Your task to perform on an android device: Add dell alienware to the cart on amazon.com Image 0: 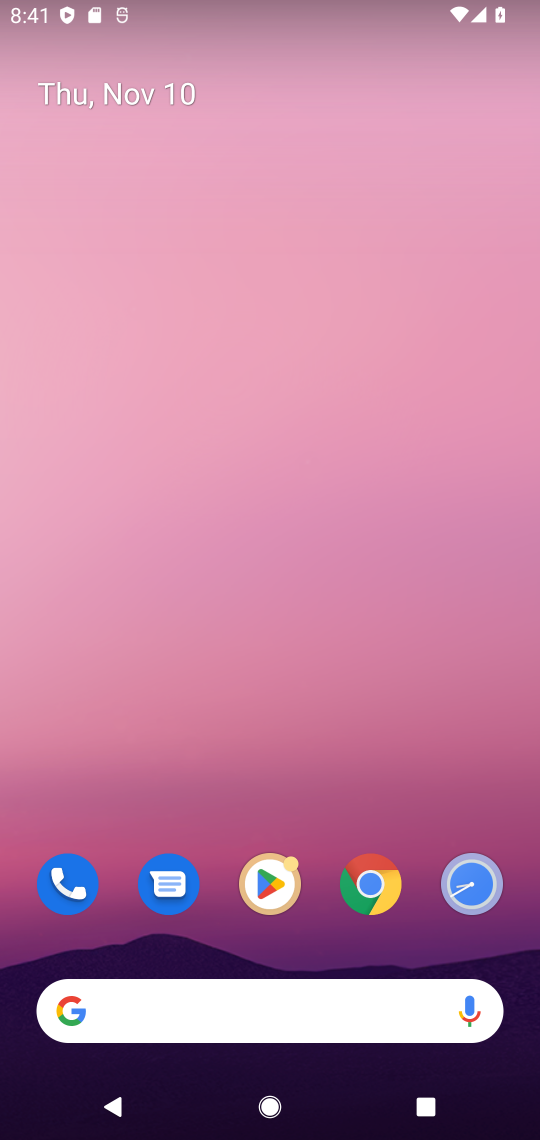
Step 0: click (231, 1016)
Your task to perform on an android device: Add dell alienware to the cart on amazon.com Image 1: 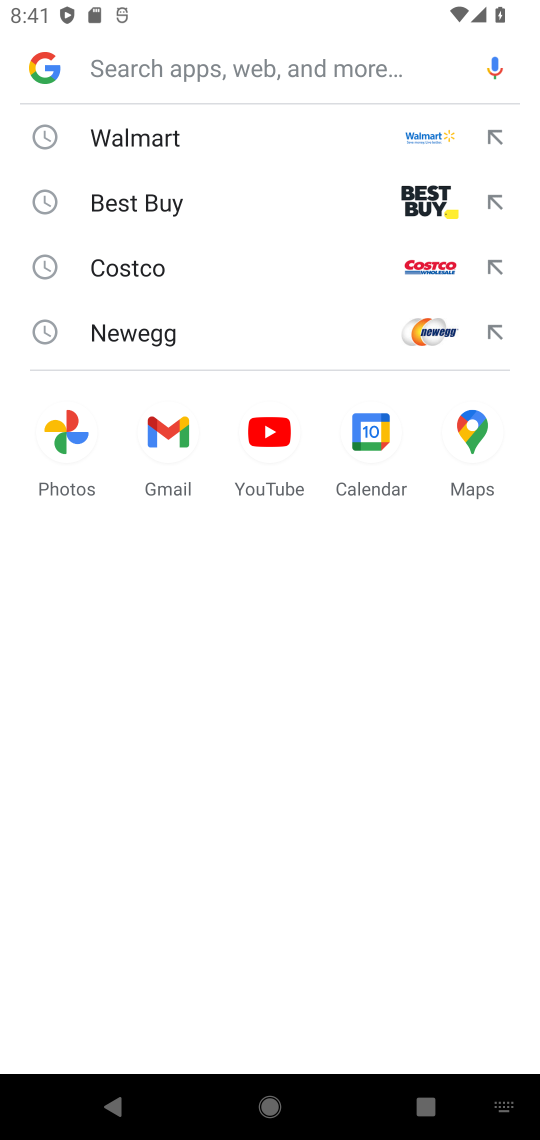
Step 1: type "amazon.com"
Your task to perform on an android device: Add dell alienware to the cart on amazon.com Image 2: 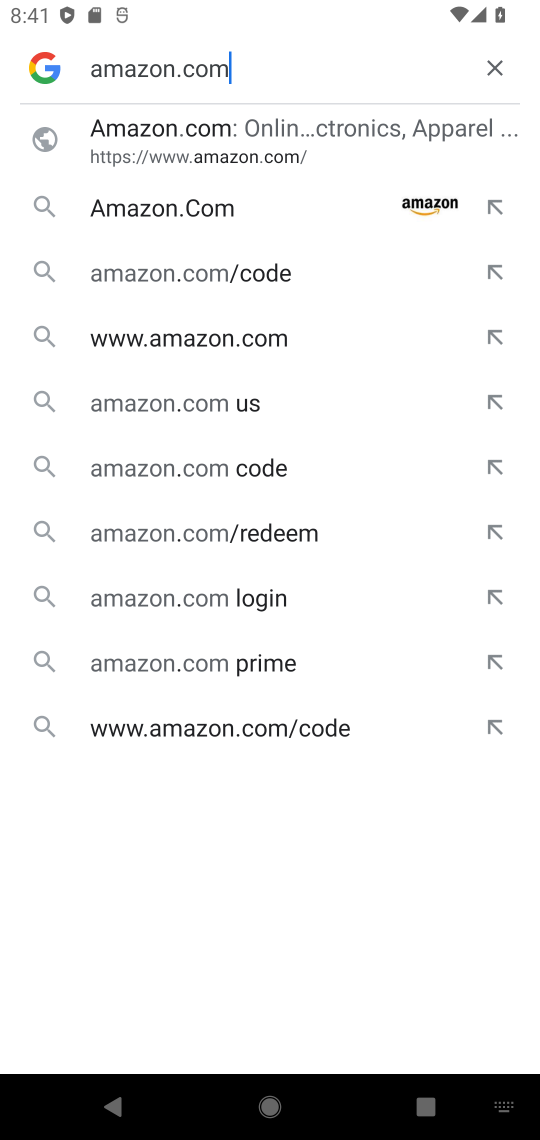
Step 2: click (200, 210)
Your task to perform on an android device: Add dell alienware to the cart on amazon.com Image 3: 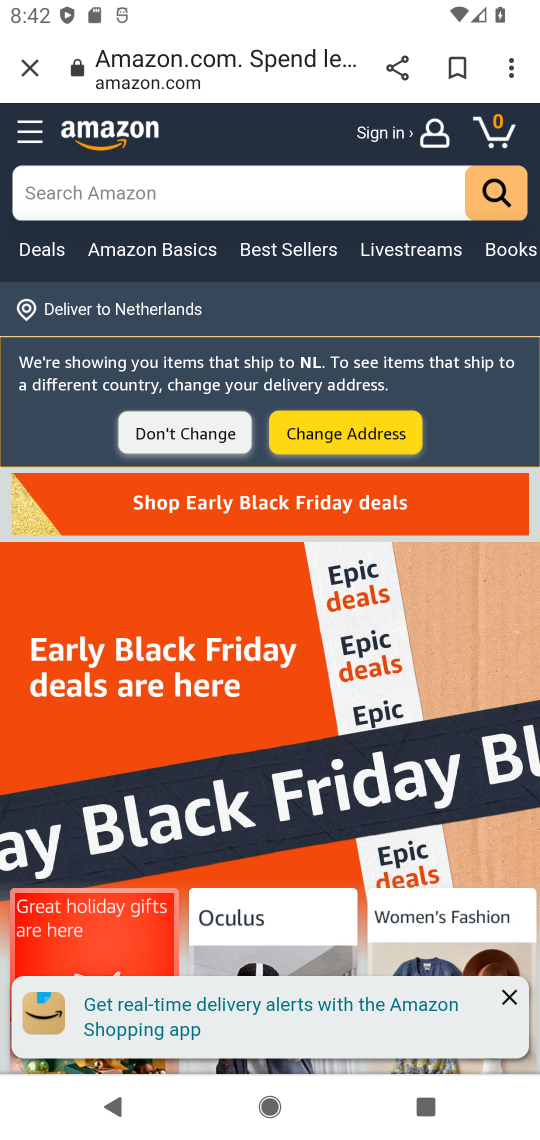
Step 3: click (169, 168)
Your task to perform on an android device: Add dell alienware to the cart on amazon.com Image 4: 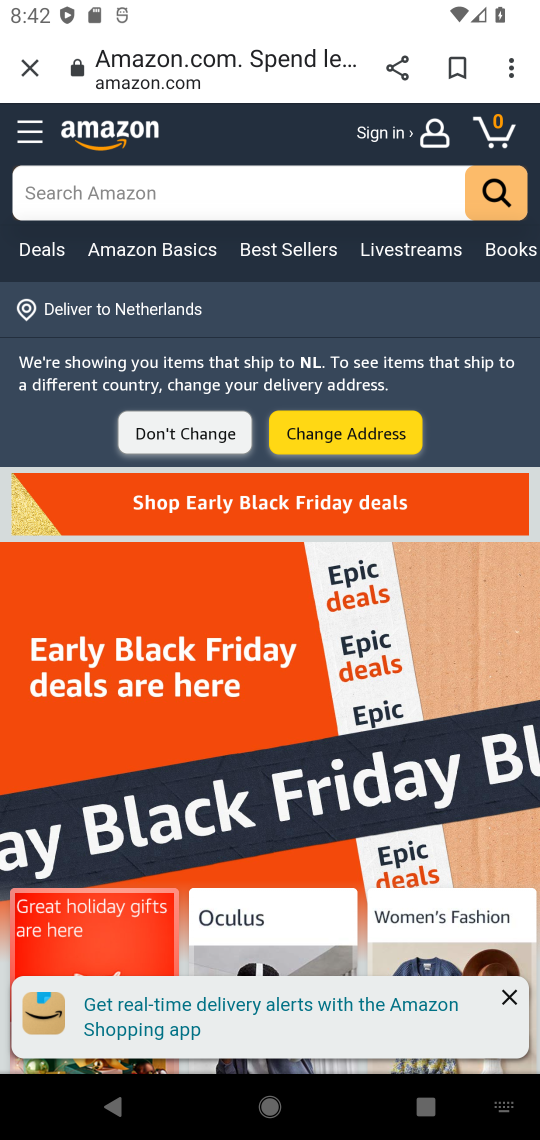
Step 4: type "dell alienware"
Your task to perform on an android device: Add dell alienware to the cart on amazon.com Image 5: 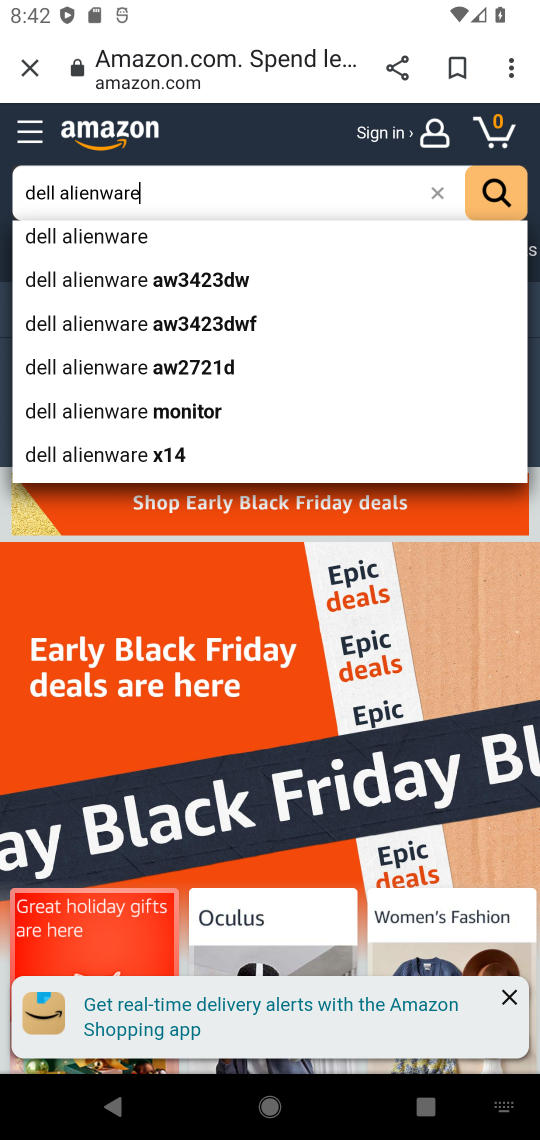
Step 5: click (83, 237)
Your task to perform on an android device: Add dell alienware to the cart on amazon.com Image 6: 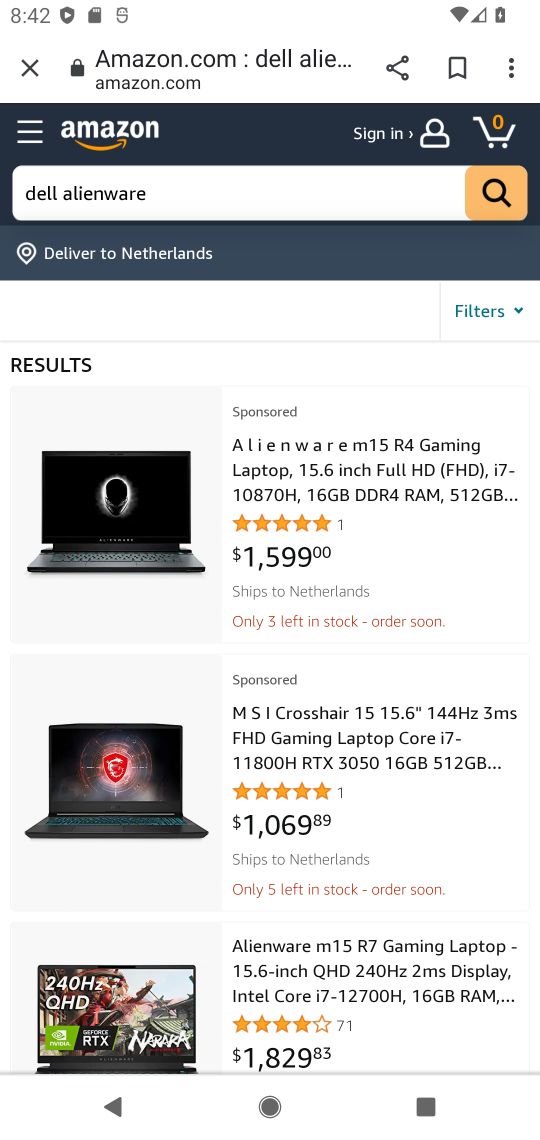
Step 6: click (254, 459)
Your task to perform on an android device: Add dell alienware to the cart on amazon.com Image 7: 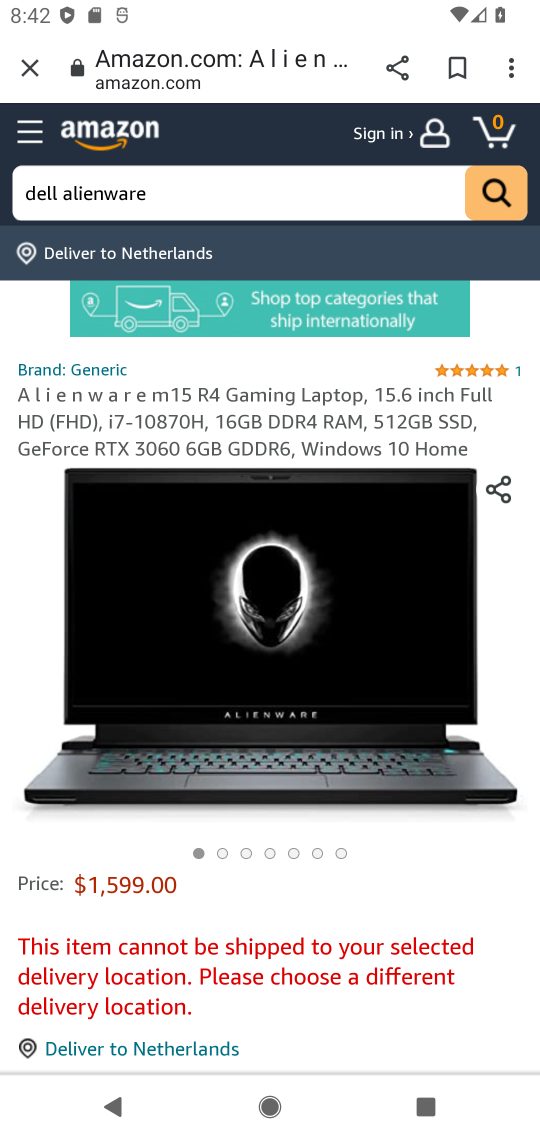
Step 7: task complete